Your task to perform on an android device: install app "Facebook Messenger" Image 0: 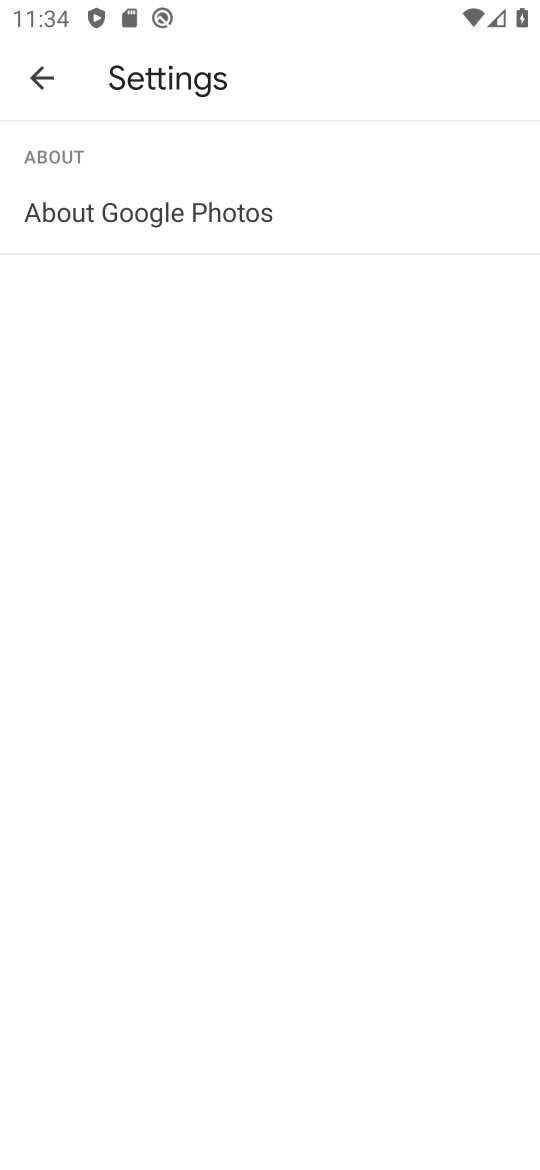
Step 0: press home button
Your task to perform on an android device: install app "Facebook Messenger" Image 1: 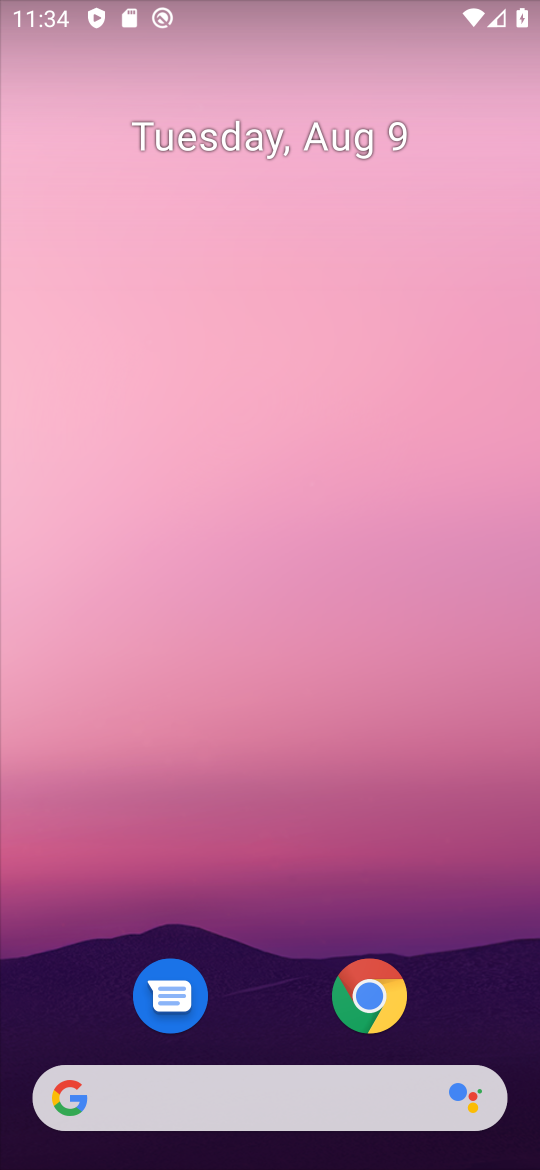
Step 1: drag from (172, 1071) to (268, 285)
Your task to perform on an android device: install app "Facebook Messenger" Image 2: 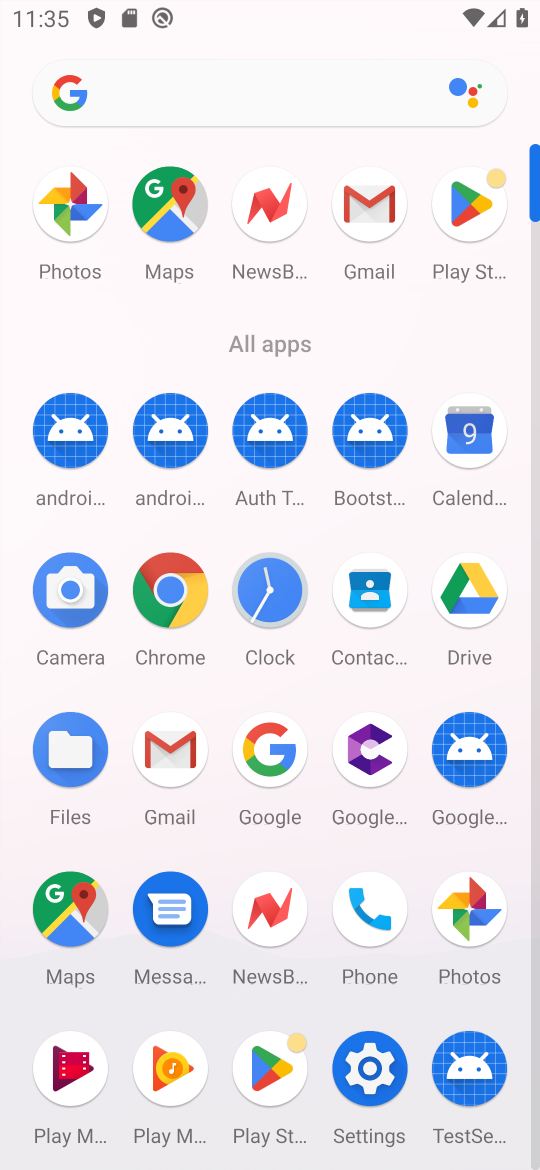
Step 2: click (484, 216)
Your task to perform on an android device: install app "Facebook Messenger" Image 3: 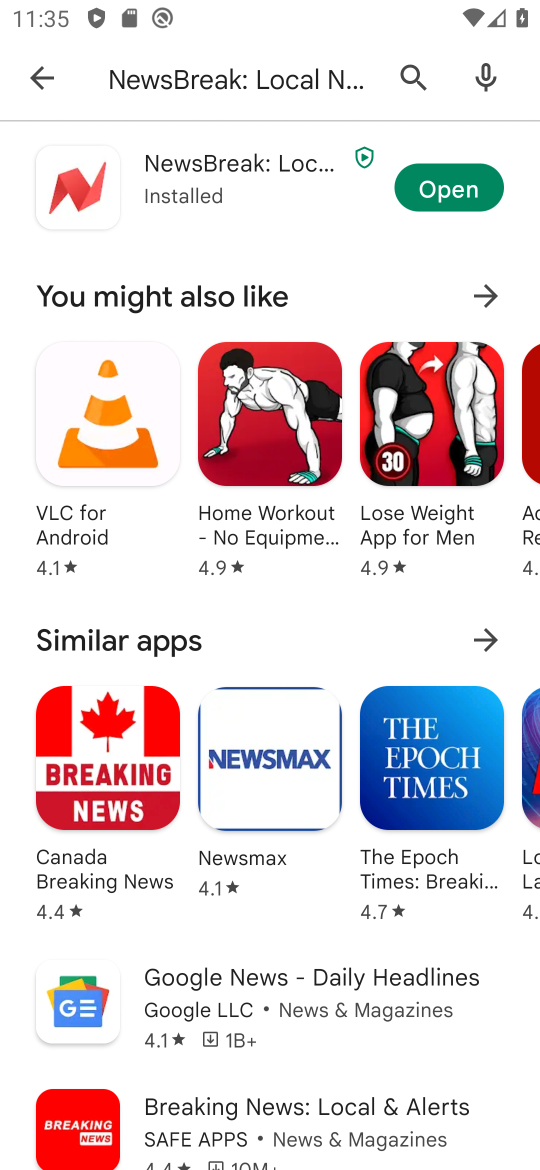
Step 3: click (34, 87)
Your task to perform on an android device: install app "Facebook Messenger" Image 4: 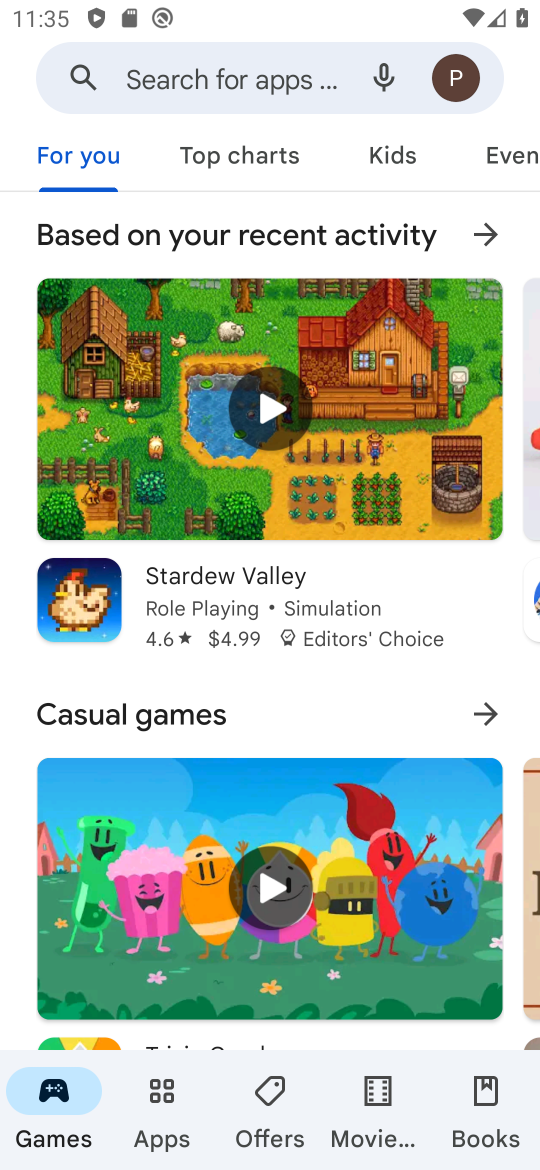
Step 4: click (180, 74)
Your task to perform on an android device: install app "Facebook Messenger" Image 5: 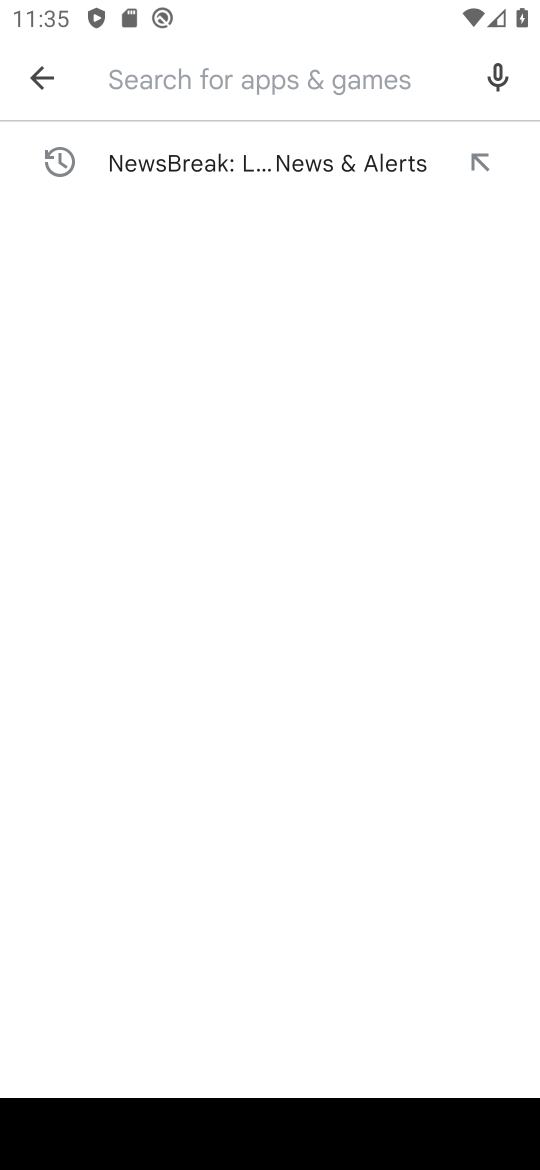
Step 5: type "Facebook Messenger"
Your task to perform on an android device: install app "Facebook Messenger" Image 6: 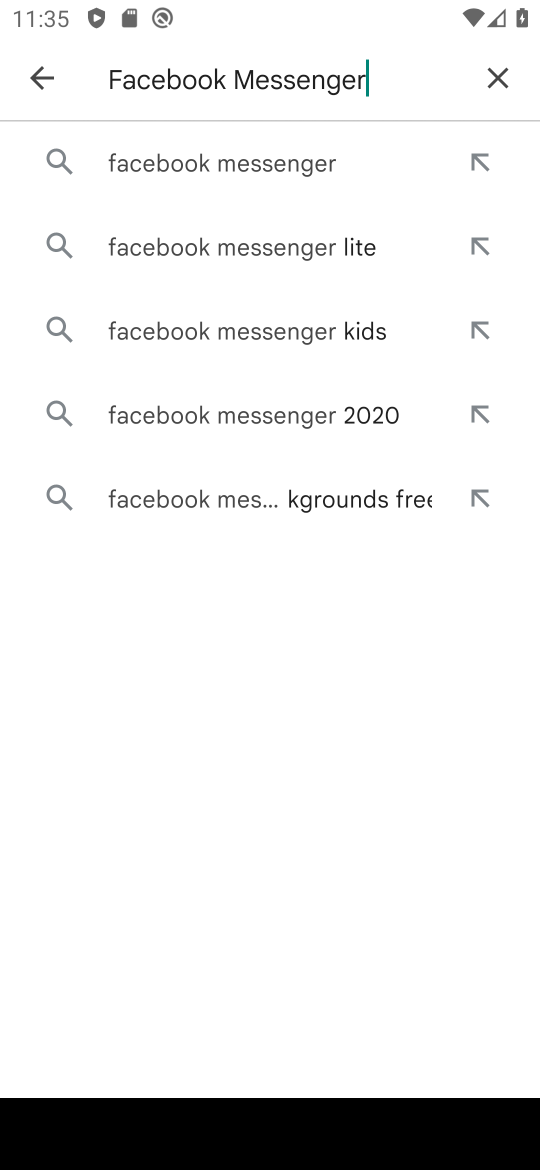
Step 6: click (318, 166)
Your task to perform on an android device: install app "Facebook Messenger" Image 7: 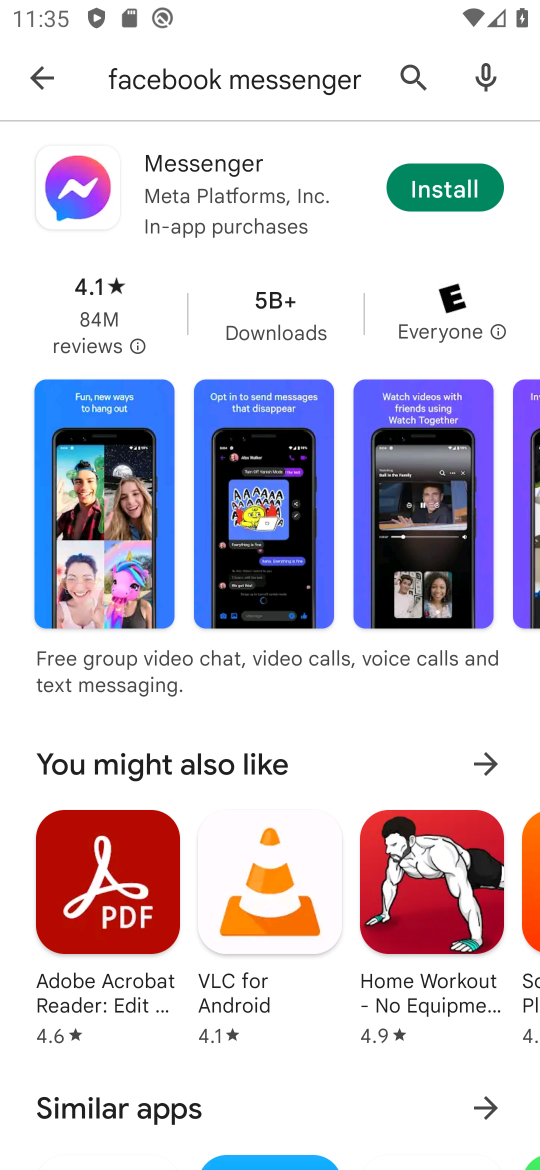
Step 7: click (423, 183)
Your task to perform on an android device: install app "Facebook Messenger" Image 8: 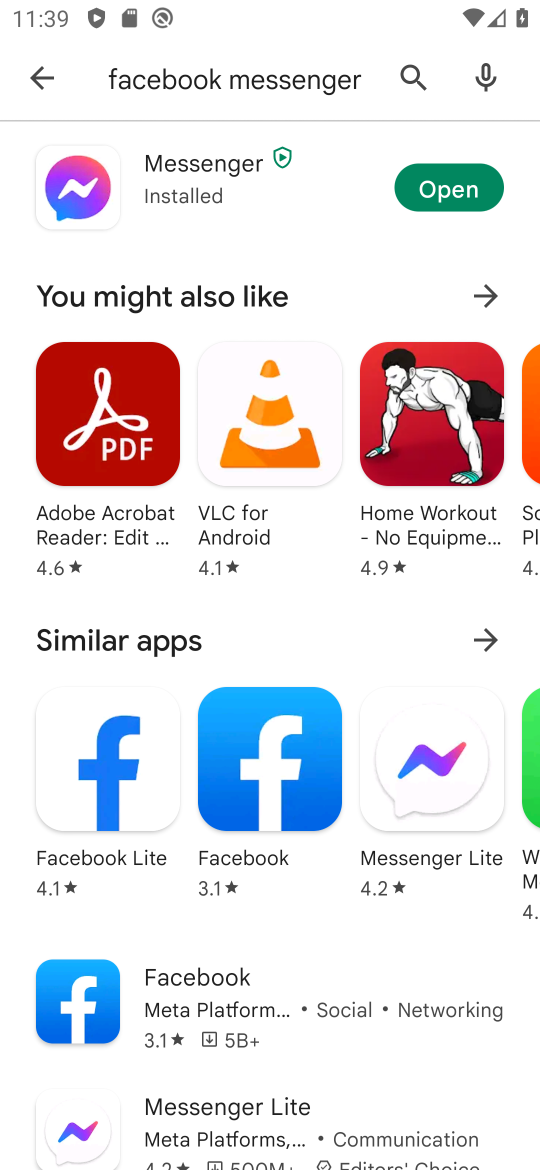
Step 8: click (448, 201)
Your task to perform on an android device: install app "Facebook Messenger" Image 9: 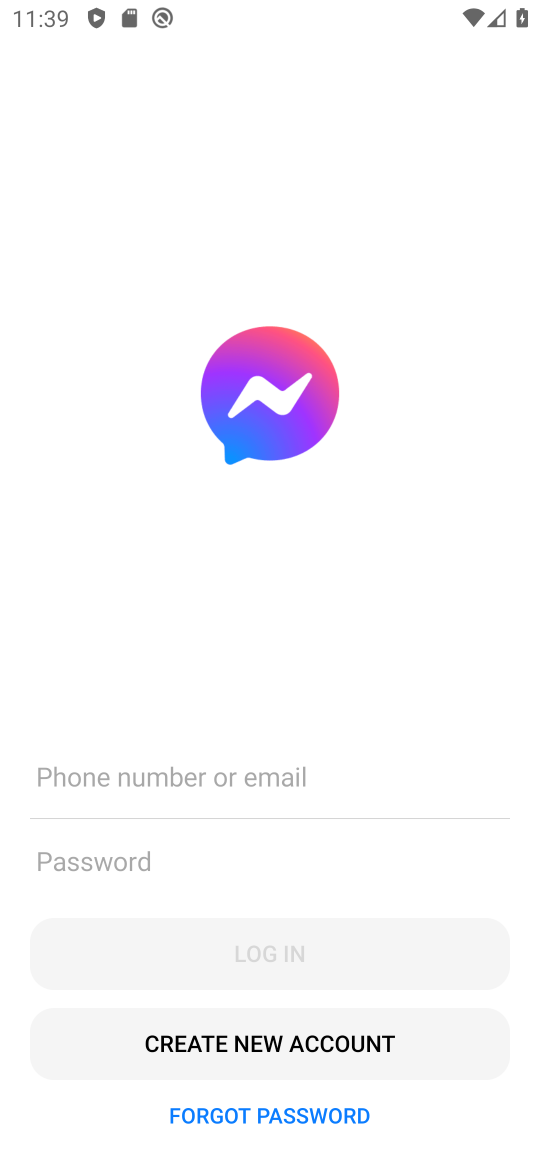
Step 9: task complete